Your task to perform on an android device: turn on sleep mode Image 0: 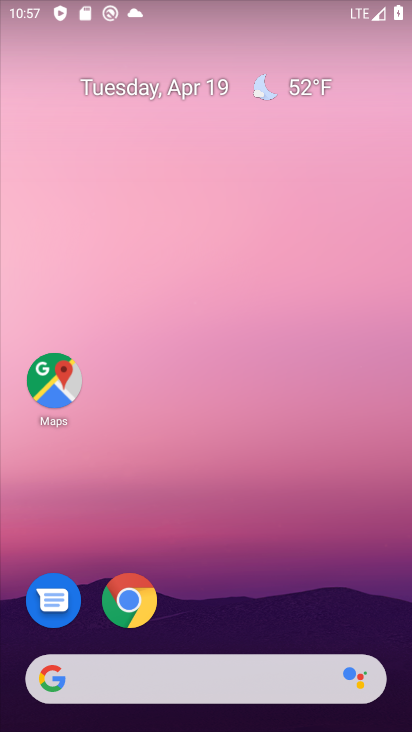
Step 0: drag from (350, 606) to (197, 67)
Your task to perform on an android device: turn on sleep mode Image 1: 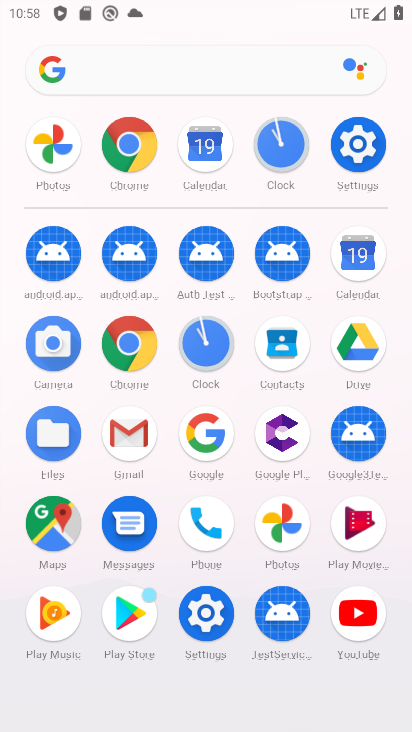
Step 1: click (361, 149)
Your task to perform on an android device: turn on sleep mode Image 2: 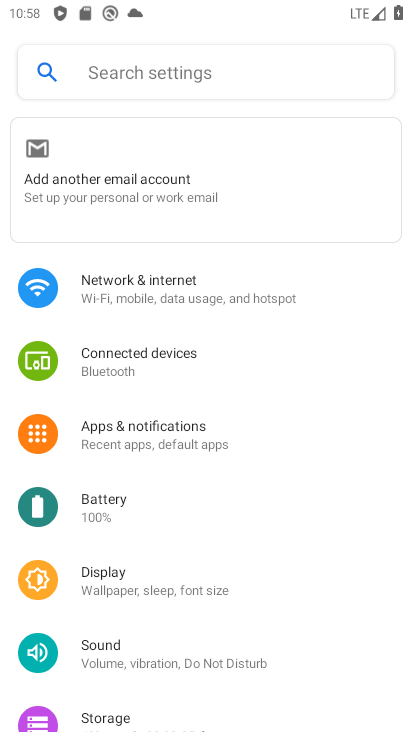
Step 2: task complete